Your task to perform on an android device: see creations saved in the google photos Image 0: 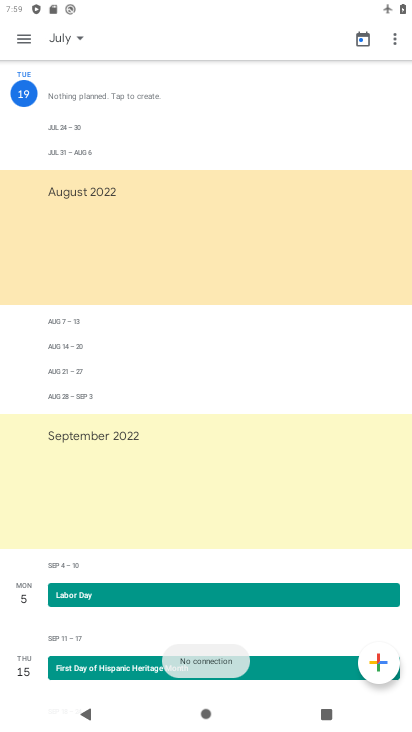
Step 0: press home button
Your task to perform on an android device: see creations saved in the google photos Image 1: 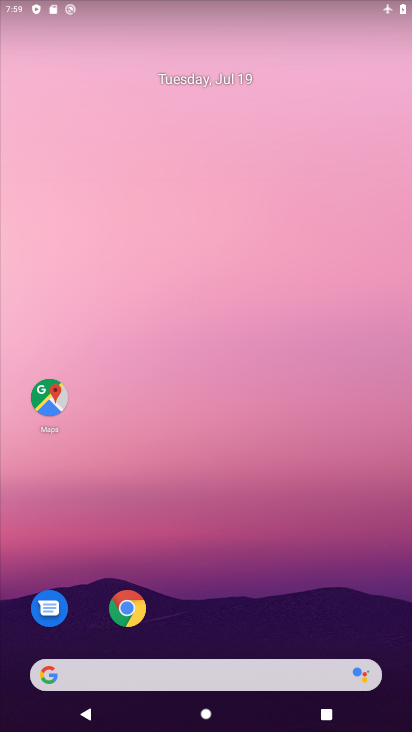
Step 1: drag from (217, 673) to (212, 213)
Your task to perform on an android device: see creations saved in the google photos Image 2: 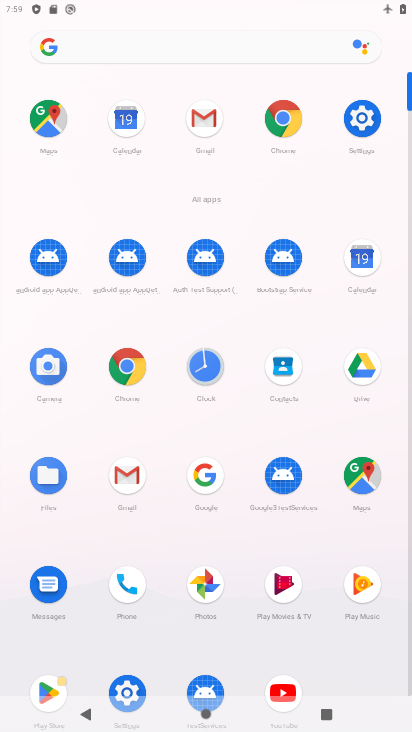
Step 2: click (210, 582)
Your task to perform on an android device: see creations saved in the google photos Image 3: 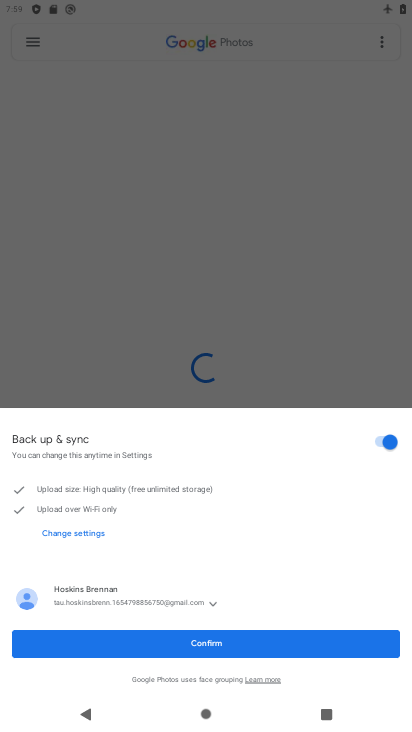
Step 3: click (160, 648)
Your task to perform on an android device: see creations saved in the google photos Image 4: 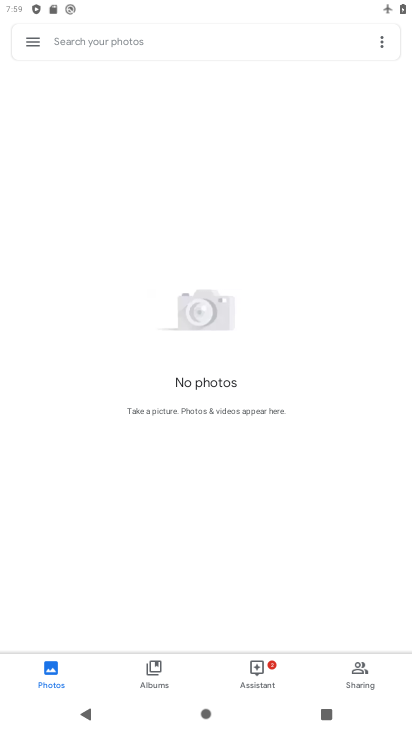
Step 4: click (257, 668)
Your task to perform on an android device: see creations saved in the google photos Image 5: 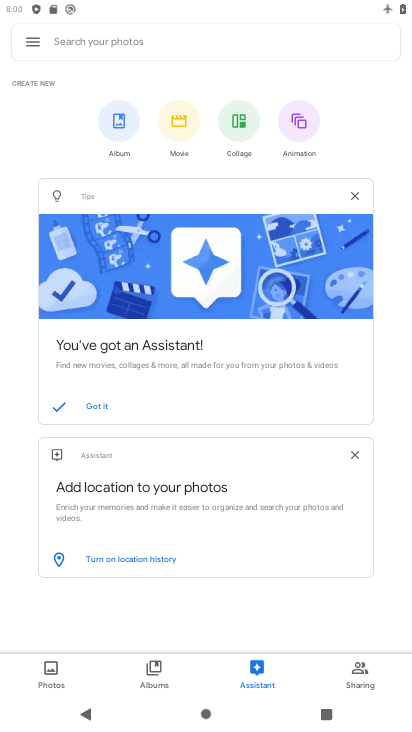
Step 5: task complete